Your task to perform on an android device: Show me the alarms in the clock app Image 0: 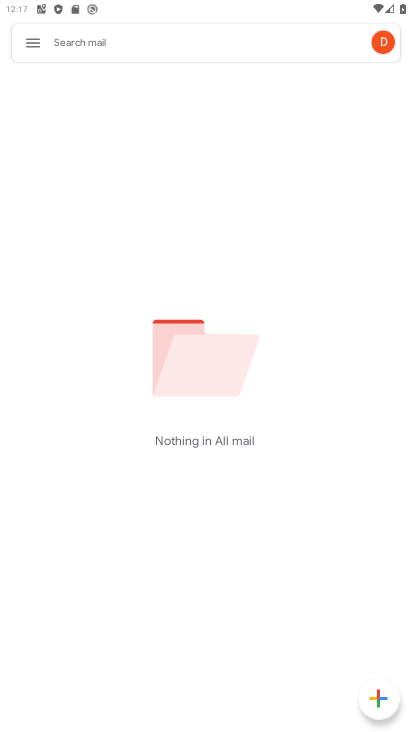
Step 0: press home button
Your task to perform on an android device: Show me the alarms in the clock app Image 1: 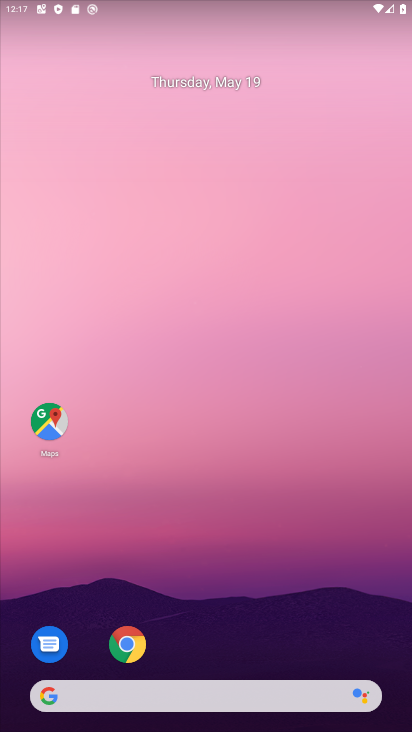
Step 1: drag from (319, 595) to (326, 214)
Your task to perform on an android device: Show me the alarms in the clock app Image 2: 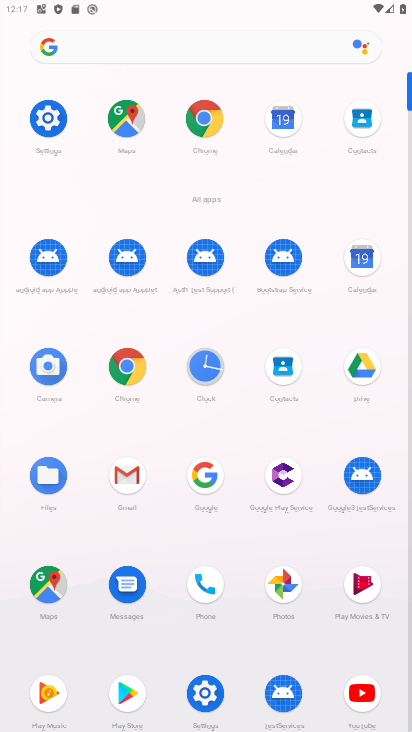
Step 2: click (216, 379)
Your task to perform on an android device: Show me the alarms in the clock app Image 3: 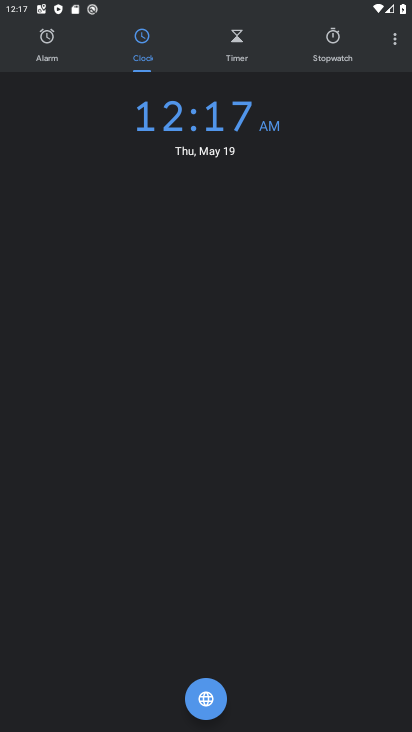
Step 3: click (33, 30)
Your task to perform on an android device: Show me the alarms in the clock app Image 4: 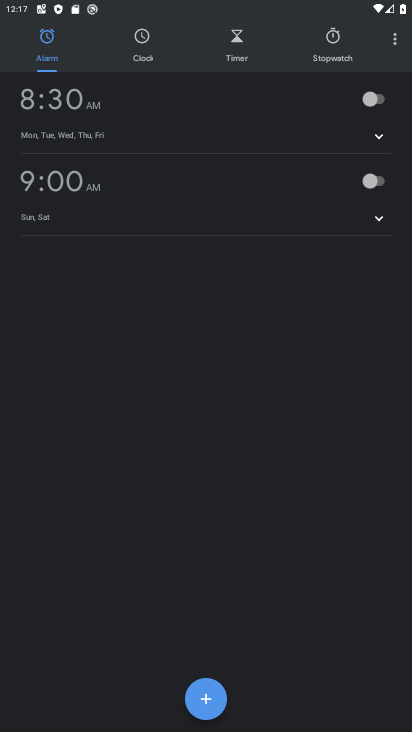
Step 4: task complete